Your task to perform on an android device: Go to Reddit.com Image 0: 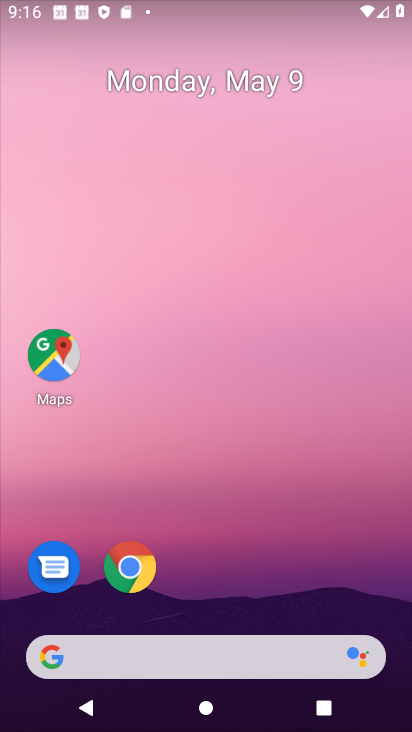
Step 0: click (150, 114)
Your task to perform on an android device: Go to Reddit.com Image 1: 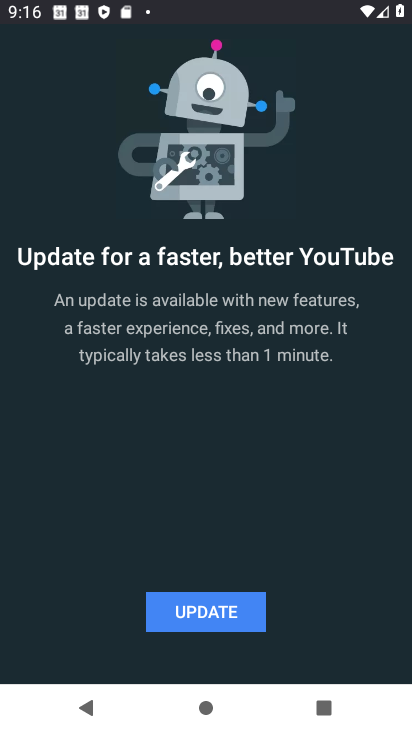
Step 1: press home button
Your task to perform on an android device: Go to Reddit.com Image 2: 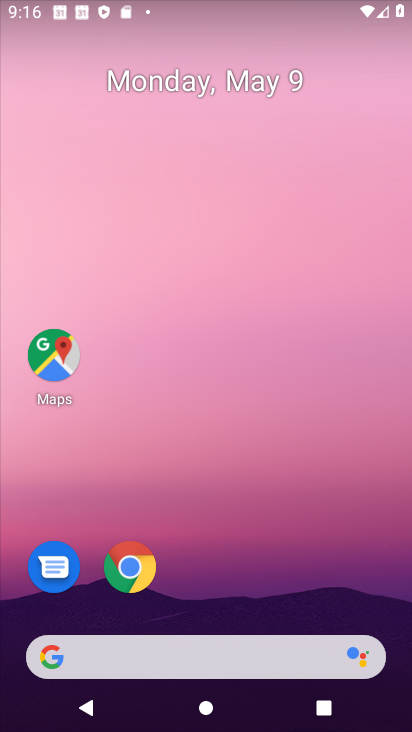
Step 2: click (125, 565)
Your task to perform on an android device: Go to Reddit.com Image 3: 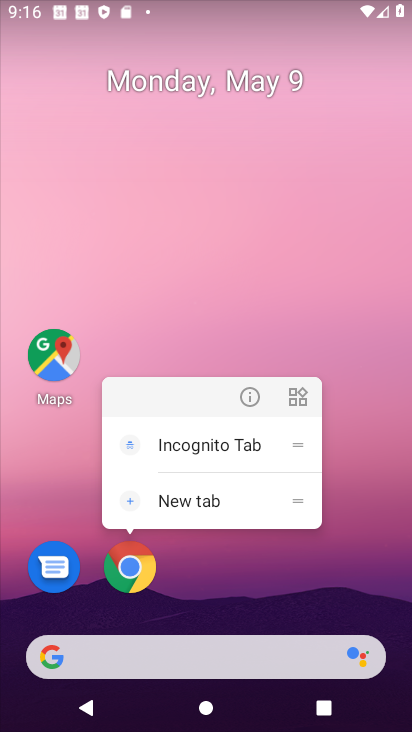
Step 3: click (137, 557)
Your task to perform on an android device: Go to Reddit.com Image 4: 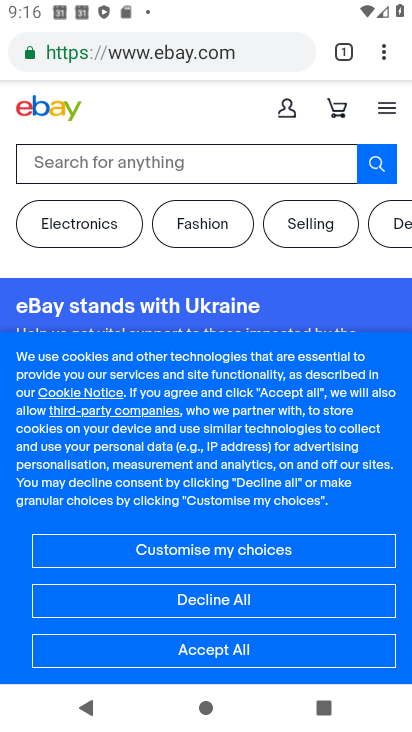
Step 4: click (210, 65)
Your task to perform on an android device: Go to Reddit.com Image 5: 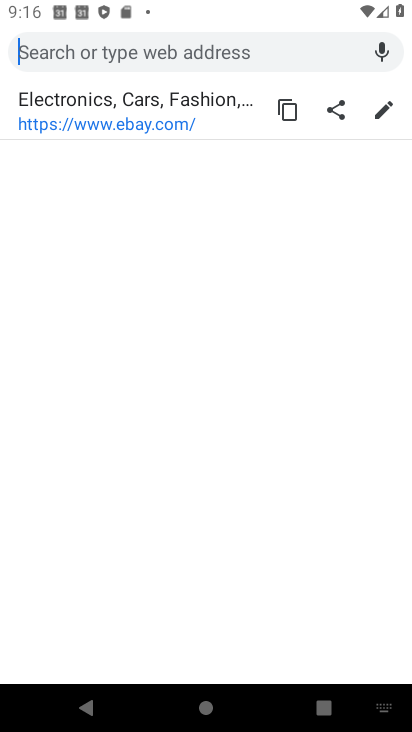
Step 5: type "reddit.com"
Your task to perform on an android device: Go to Reddit.com Image 6: 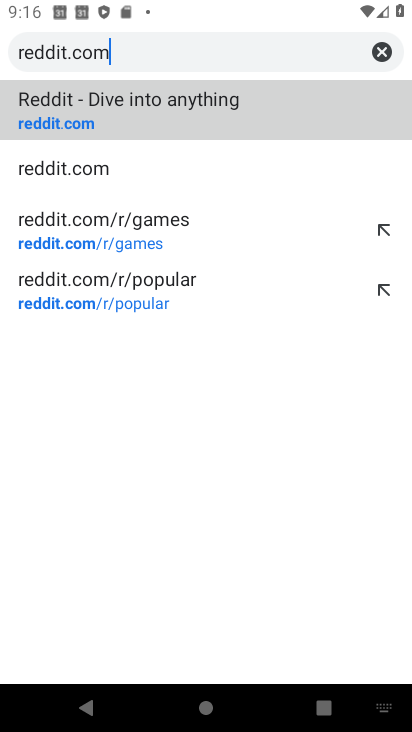
Step 6: click (171, 131)
Your task to perform on an android device: Go to Reddit.com Image 7: 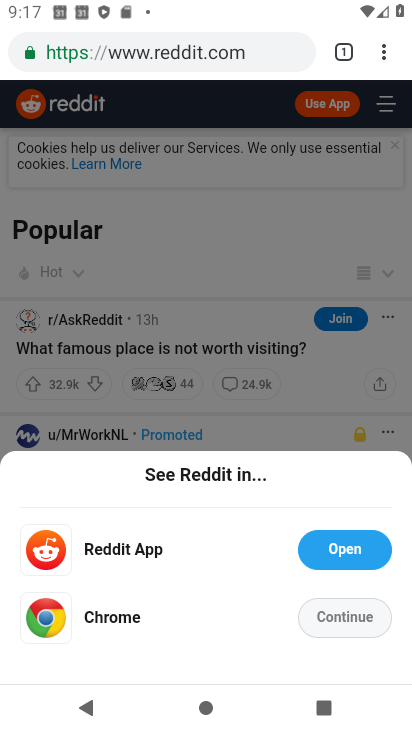
Step 7: click (314, 605)
Your task to perform on an android device: Go to Reddit.com Image 8: 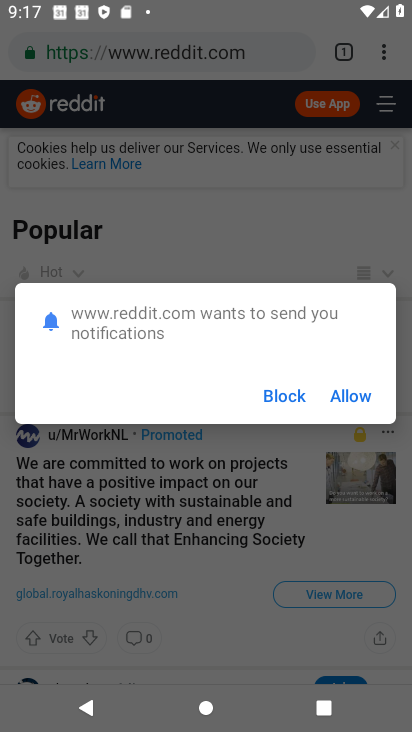
Step 8: task complete